Your task to perform on an android device: clear all cookies in the chrome app Image 0: 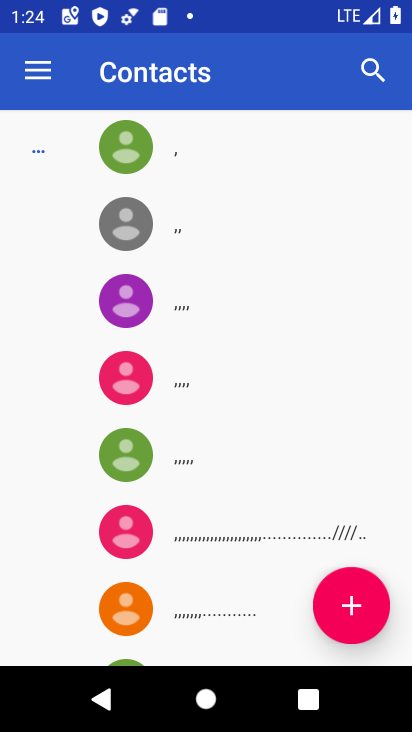
Step 0: press home button
Your task to perform on an android device: clear all cookies in the chrome app Image 1: 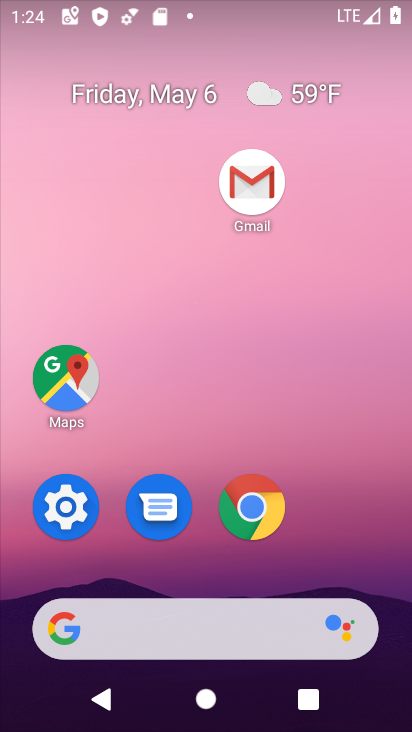
Step 1: click (252, 508)
Your task to perform on an android device: clear all cookies in the chrome app Image 2: 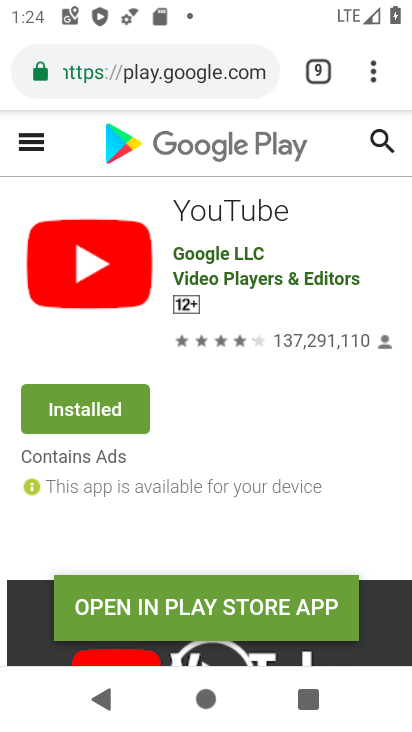
Step 2: click (365, 66)
Your task to perform on an android device: clear all cookies in the chrome app Image 3: 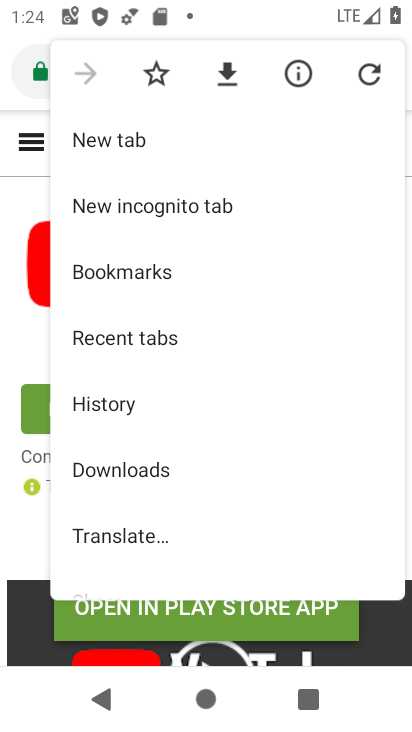
Step 3: click (100, 399)
Your task to perform on an android device: clear all cookies in the chrome app Image 4: 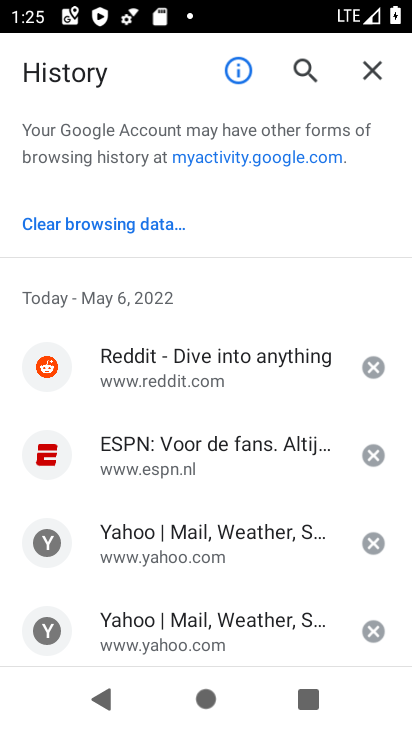
Step 4: click (119, 225)
Your task to perform on an android device: clear all cookies in the chrome app Image 5: 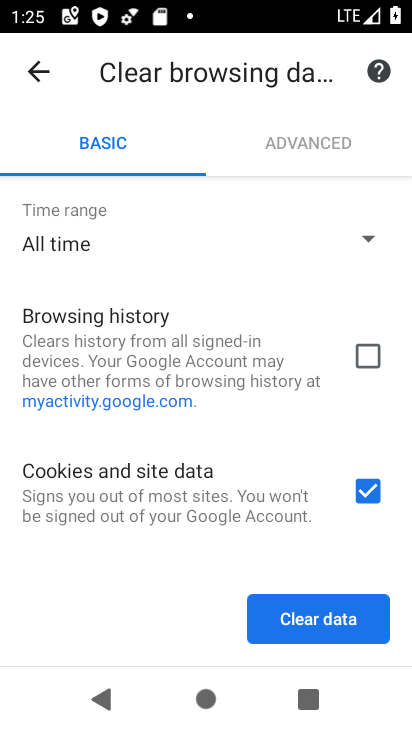
Step 5: drag from (315, 429) to (312, 105)
Your task to perform on an android device: clear all cookies in the chrome app Image 6: 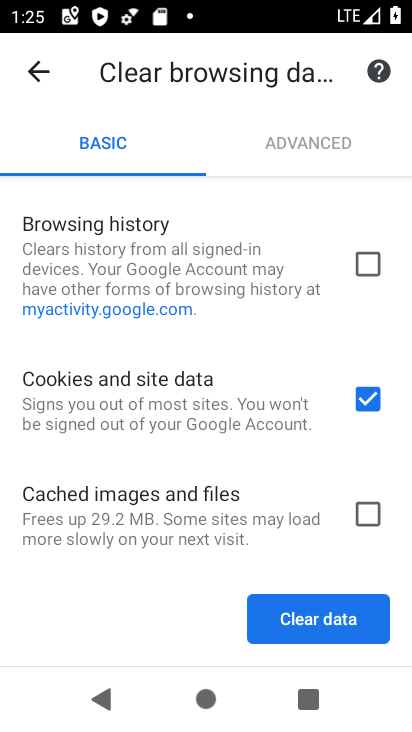
Step 6: click (338, 612)
Your task to perform on an android device: clear all cookies in the chrome app Image 7: 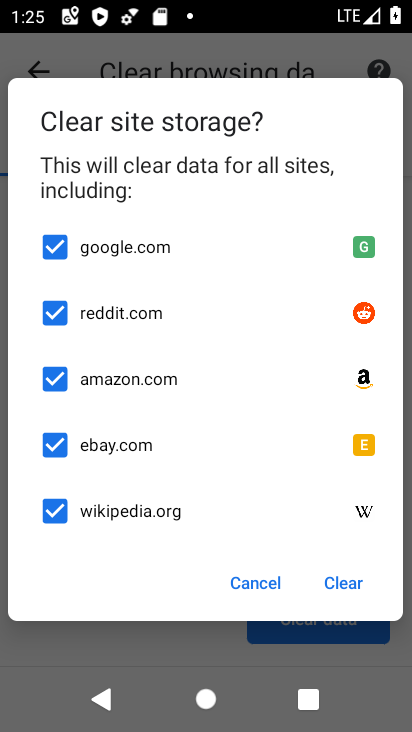
Step 7: click (345, 585)
Your task to perform on an android device: clear all cookies in the chrome app Image 8: 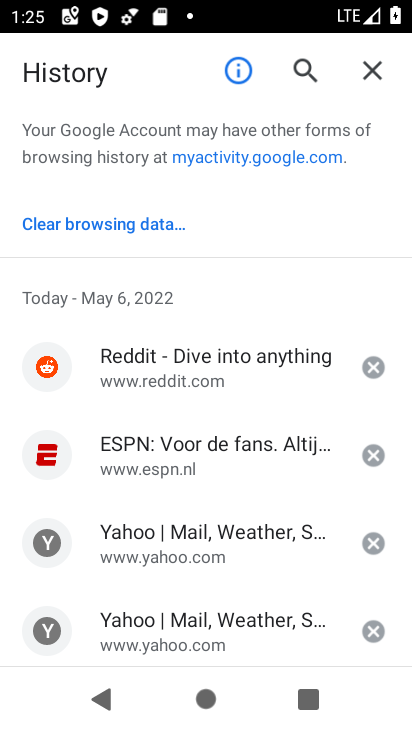
Step 8: task complete